Your task to perform on an android device: change the clock display to show seconds Image 0: 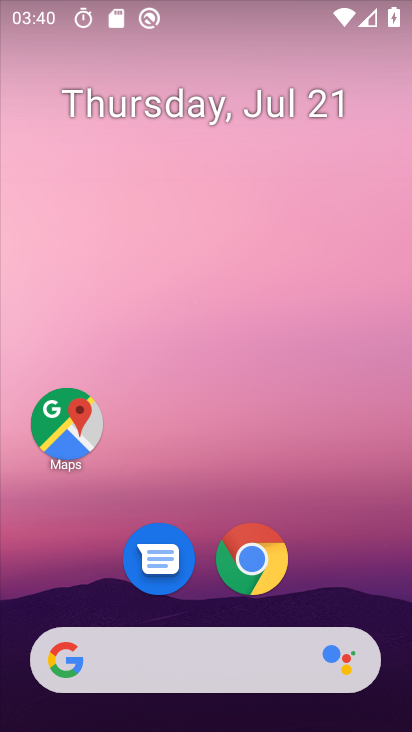
Step 0: drag from (372, 550) to (384, 59)
Your task to perform on an android device: change the clock display to show seconds Image 1: 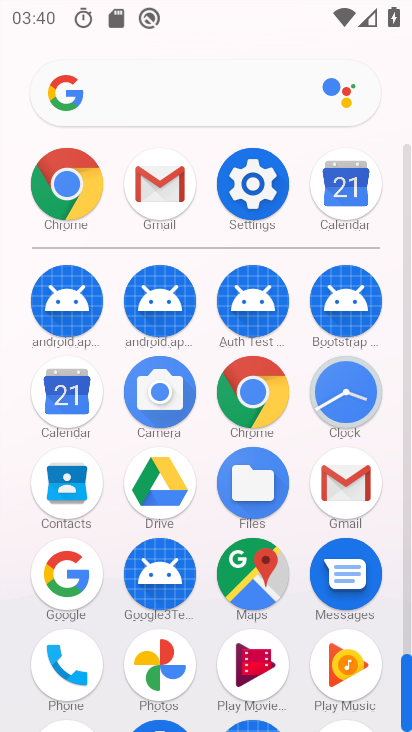
Step 1: click (350, 393)
Your task to perform on an android device: change the clock display to show seconds Image 2: 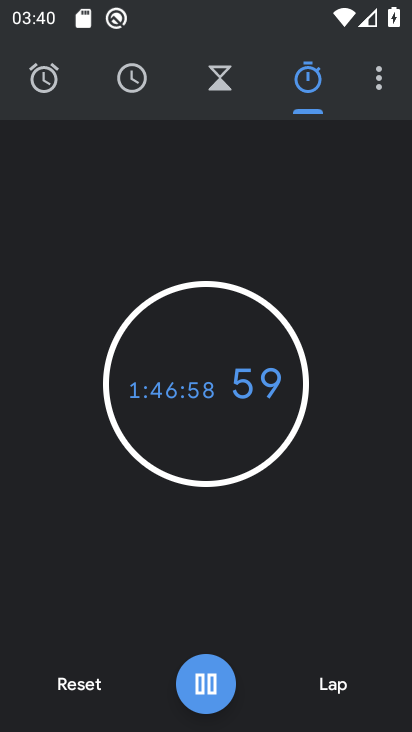
Step 2: click (380, 92)
Your task to perform on an android device: change the clock display to show seconds Image 3: 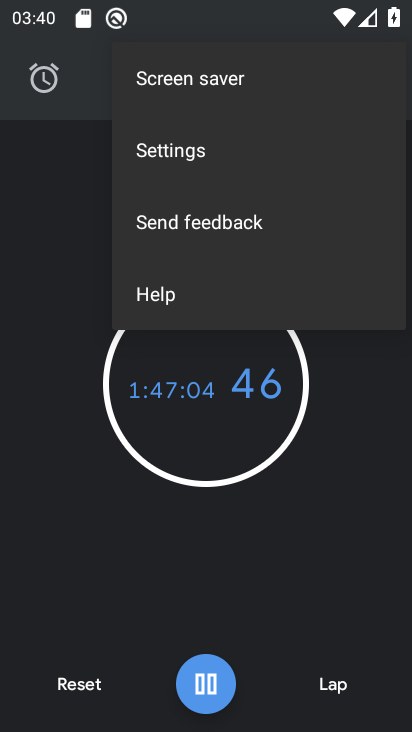
Step 3: click (232, 154)
Your task to perform on an android device: change the clock display to show seconds Image 4: 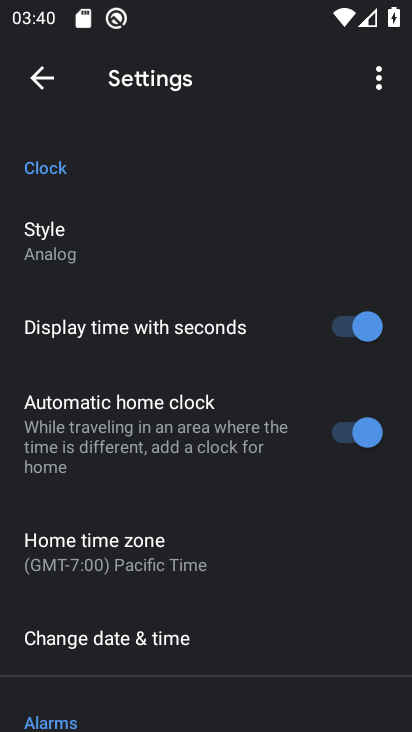
Step 4: task complete